Your task to perform on an android device: Search for pizza restaurants on Maps Image 0: 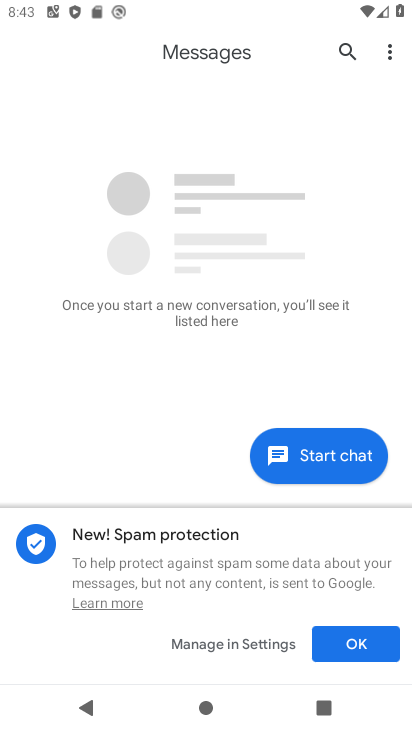
Step 0: press home button
Your task to perform on an android device: Search for pizza restaurants on Maps Image 1: 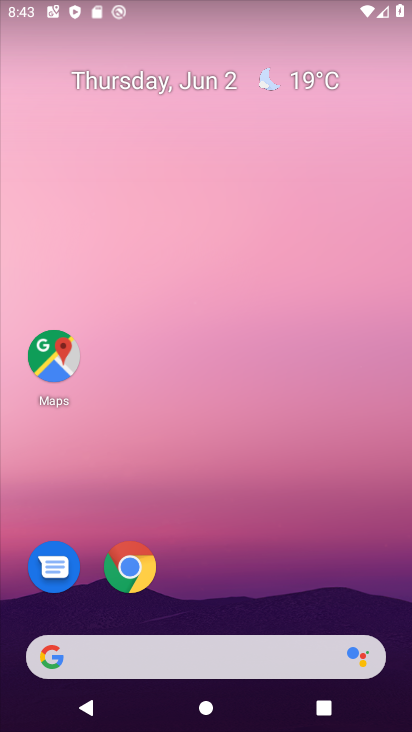
Step 1: click (24, 344)
Your task to perform on an android device: Search for pizza restaurants on Maps Image 2: 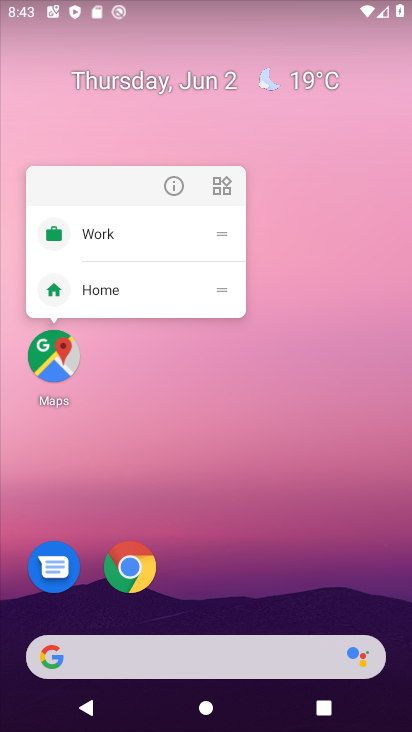
Step 2: click (52, 360)
Your task to perform on an android device: Search for pizza restaurants on Maps Image 3: 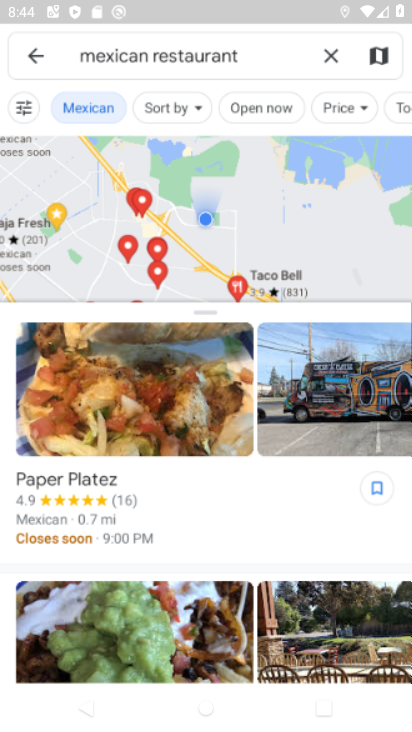
Step 3: click (109, 55)
Your task to perform on an android device: Search for pizza restaurants on Maps Image 4: 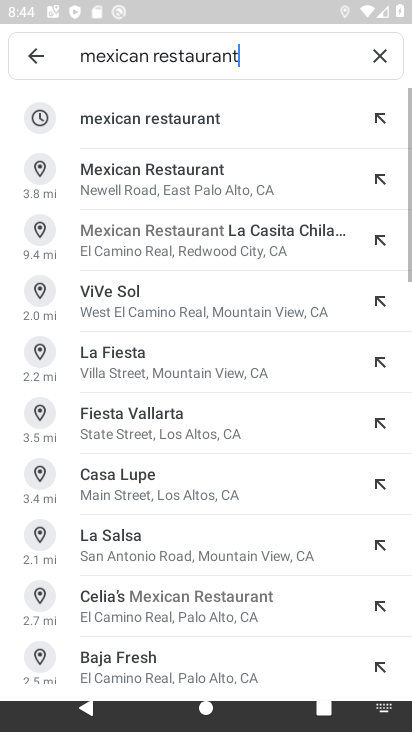
Step 4: click (111, 54)
Your task to perform on an android device: Search for pizza restaurants on Maps Image 5: 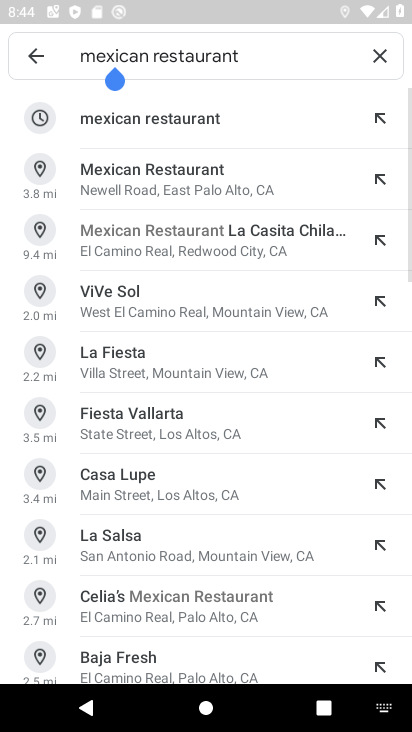
Step 5: click (112, 54)
Your task to perform on an android device: Search for pizza restaurants on Maps Image 6: 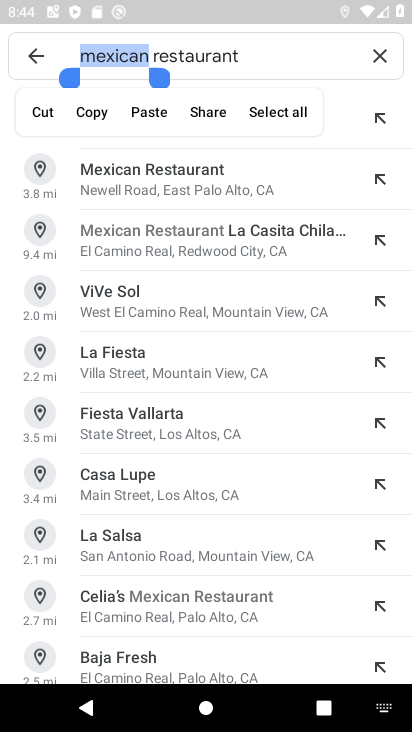
Step 6: type "Pizza"
Your task to perform on an android device: Search for pizza restaurants on Maps Image 7: 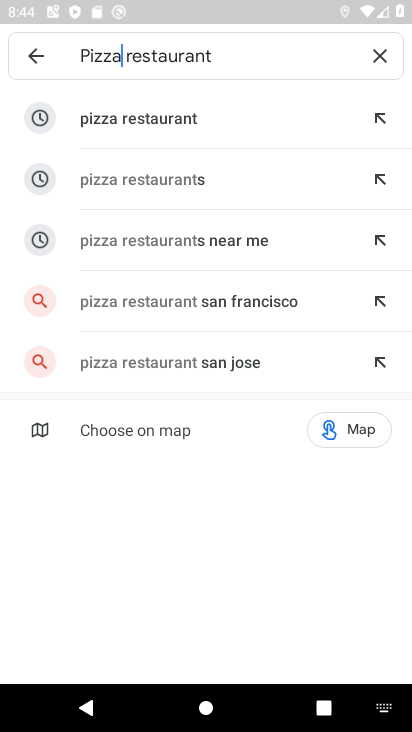
Step 7: click (159, 112)
Your task to perform on an android device: Search for pizza restaurants on Maps Image 8: 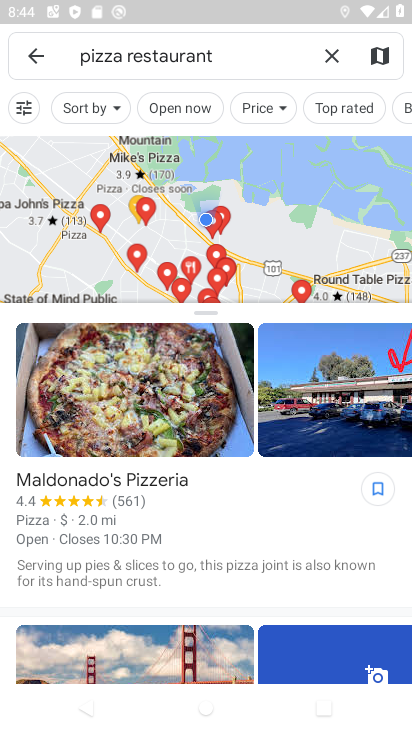
Step 8: task complete